Your task to perform on an android device: open app "File Manager" Image 0: 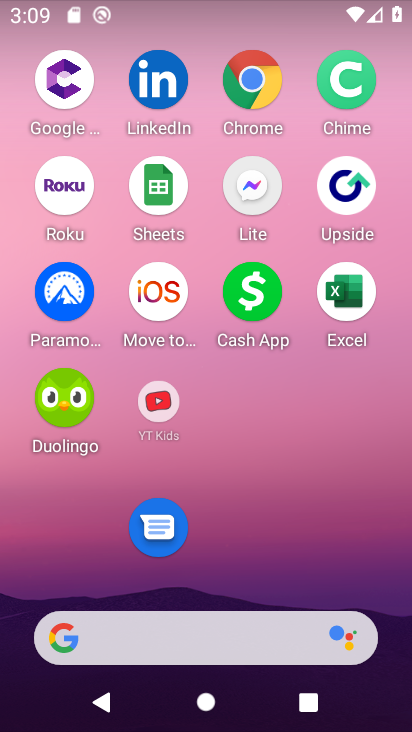
Step 0: drag from (325, 594) to (291, 0)
Your task to perform on an android device: open app "File Manager" Image 1: 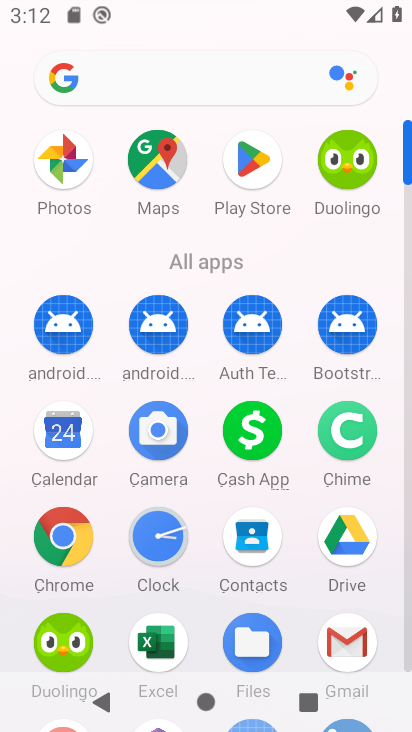
Step 1: press home button
Your task to perform on an android device: open app "File Manager" Image 2: 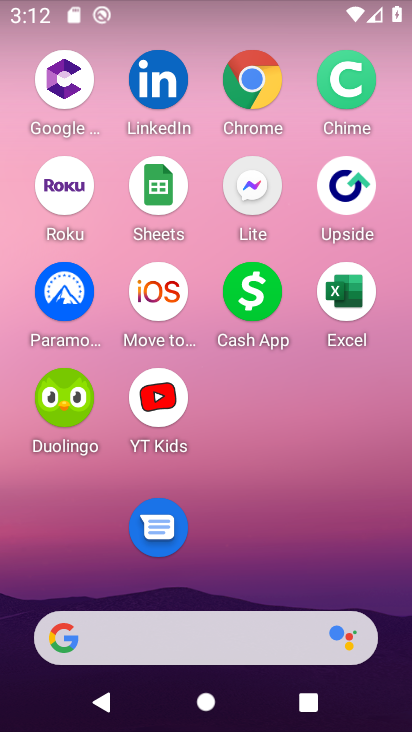
Step 2: drag from (280, 588) to (284, 110)
Your task to perform on an android device: open app "File Manager" Image 3: 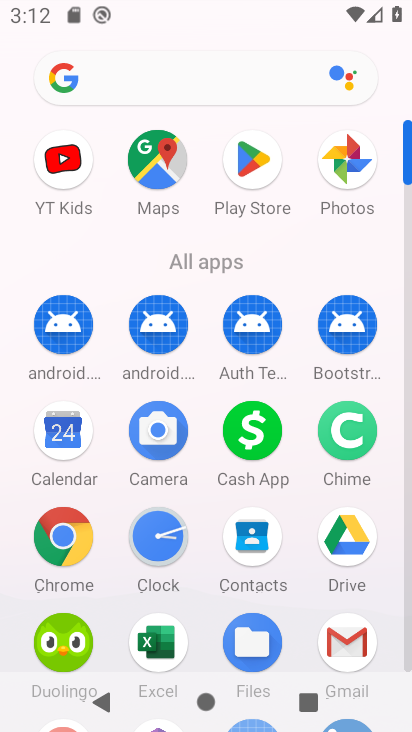
Step 3: click (267, 162)
Your task to perform on an android device: open app "File Manager" Image 4: 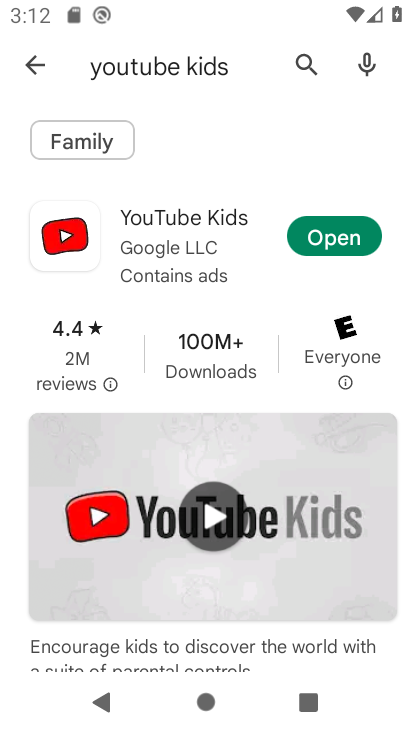
Step 4: click (306, 53)
Your task to perform on an android device: open app "File Manager" Image 5: 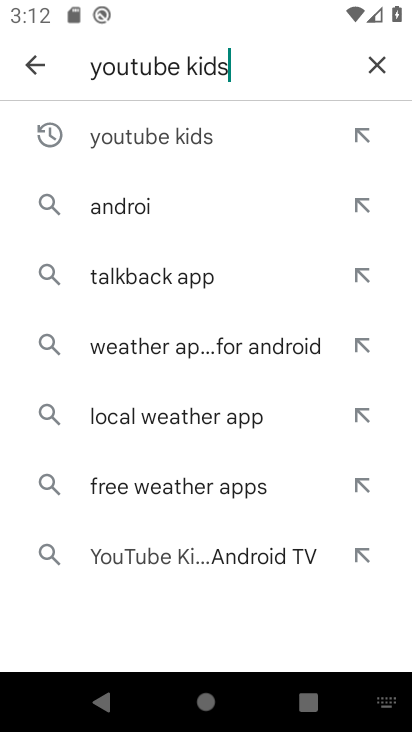
Step 5: click (373, 64)
Your task to perform on an android device: open app "File Manager" Image 6: 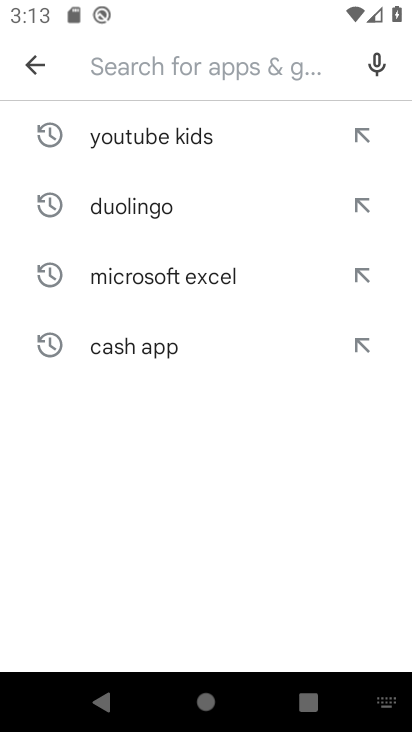
Step 6: type "file maanager"
Your task to perform on an android device: open app "File Manager" Image 7: 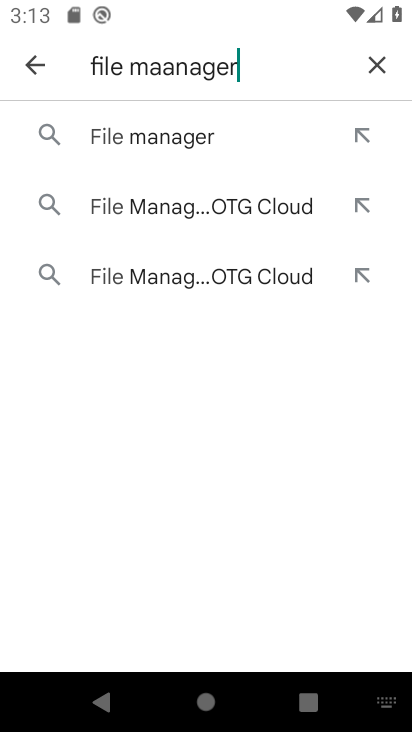
Step 7: click (174, 123)
Your task to perform on an android device: open app "File Manager" Image 8: 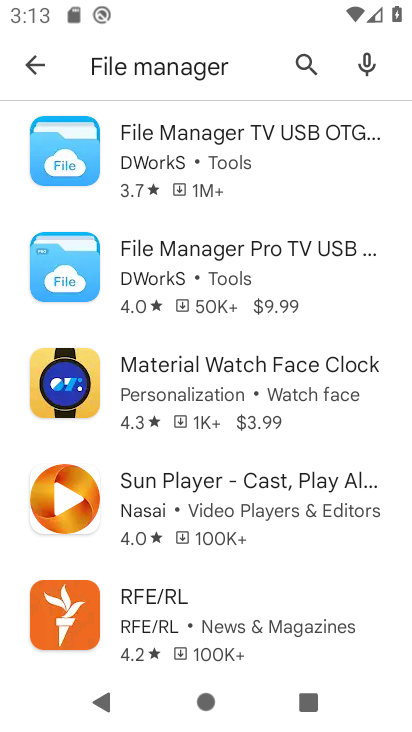
Step 8: click (352, 154)
Your task to perform on an android device: open app "File Manager" Image 9: 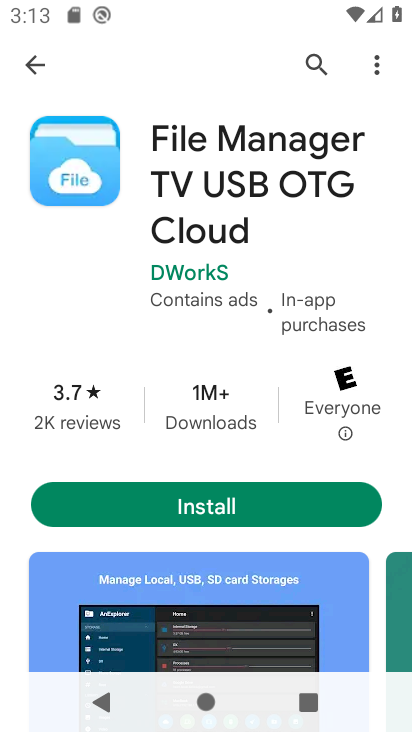
Step 9: click (203, 490)
Your task to perform on an android device: open app "File Manager" Image 10: 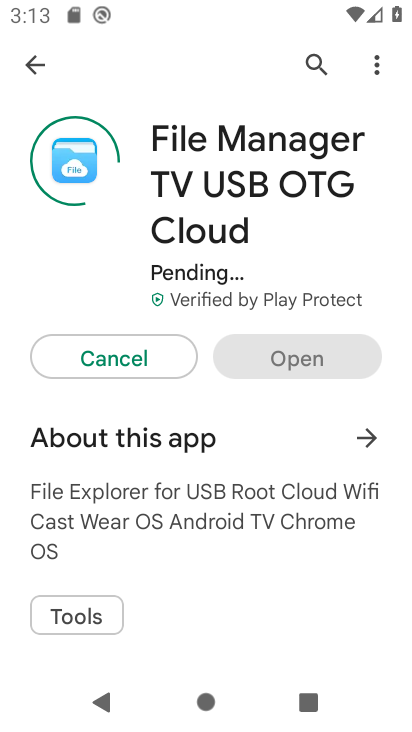
Step 10: task complete